Your task to perform on an android device: change alarm snooze length Image 0: 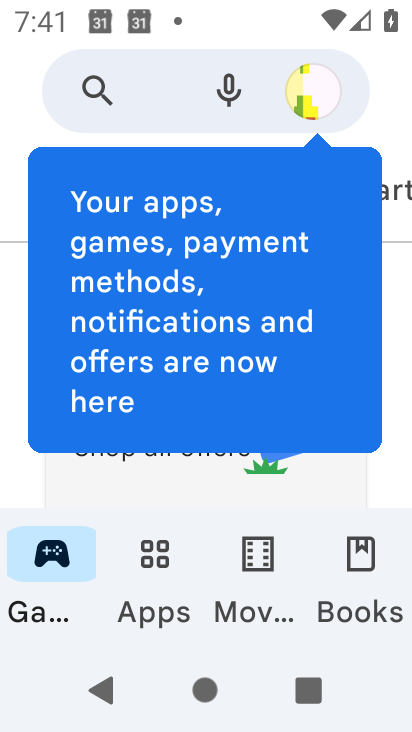
Step 0: press home button
Your task to perform on an android device: change alarm snooze length Image 1: 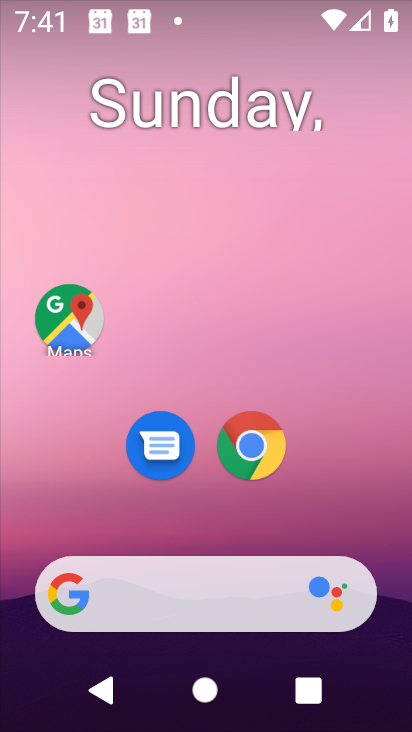
Step 1: drag from (63, 498) to (200, 234)
Your task to perform on an android device: change alarm snooze length Image 2: 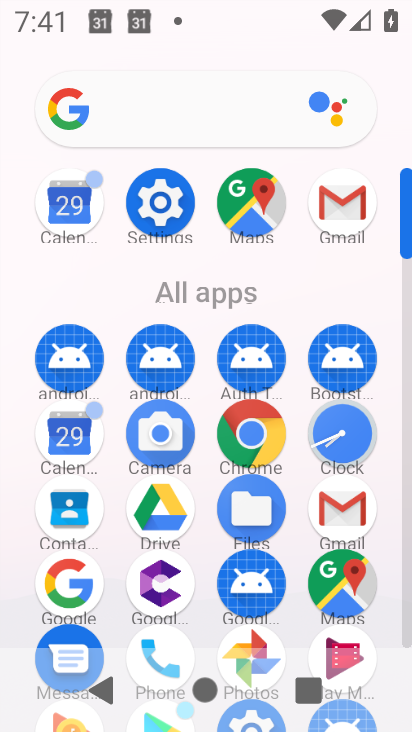
Step 2: click (354, 419)
Your task to perform on an android device: change alarm snooze length Image 3: 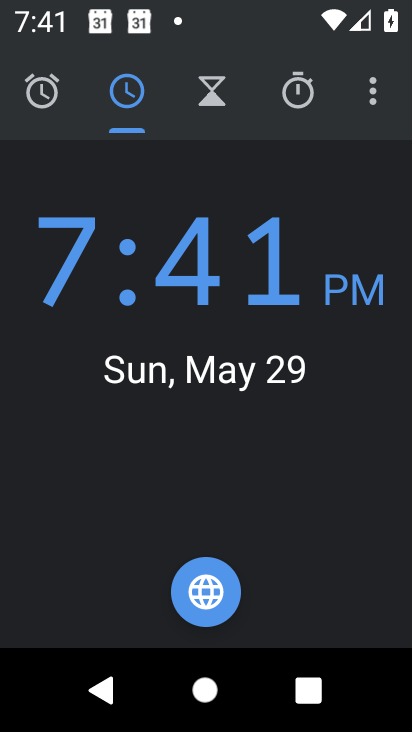
Step 3: click (374, 96)
Your task to perform on an android device: change alarm snooze length Image 4: 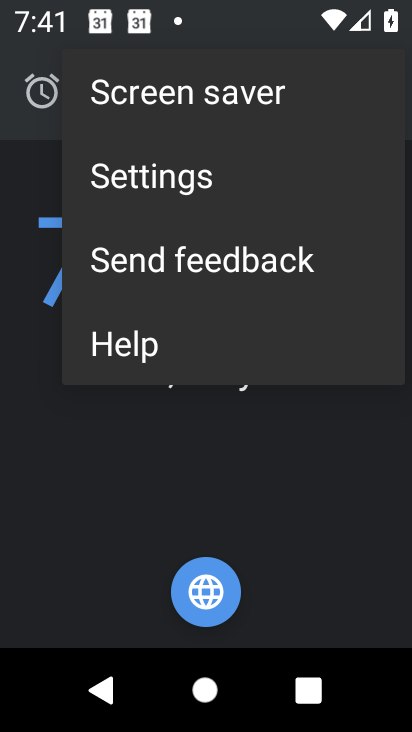
Step 4: click (204, 171)
Your task to perform on an android device: change alarm snooze length Image 5: 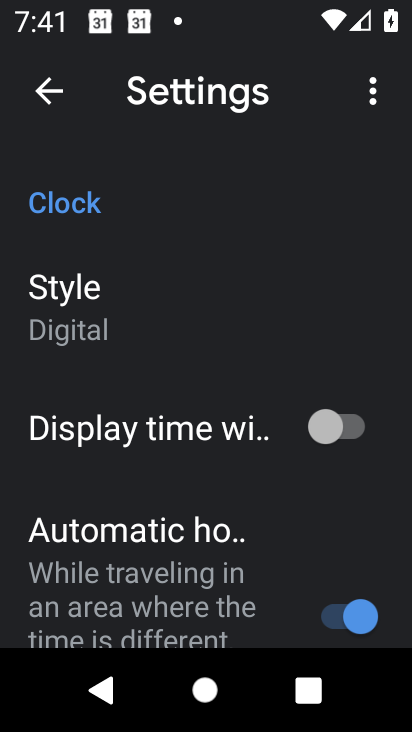
Step 5: drag from (29, 442) to (204, 67)
Your task to perform on an android device: change alarm snooze length Image 6: 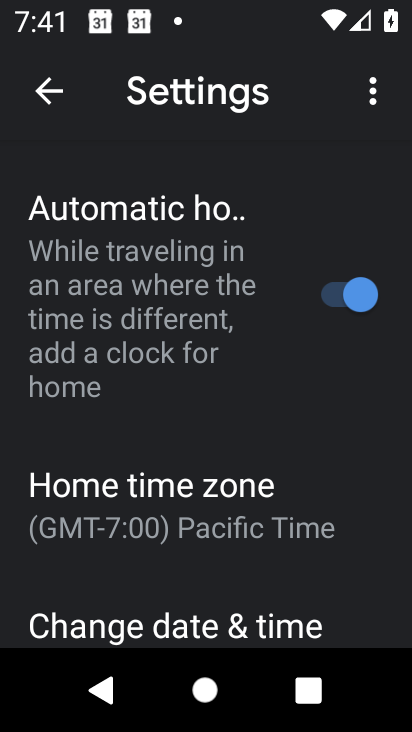
Step 6: drag from (18, 532) to (233, 124)
Your task to perform on an android device: change alarm snooze length Image 7: 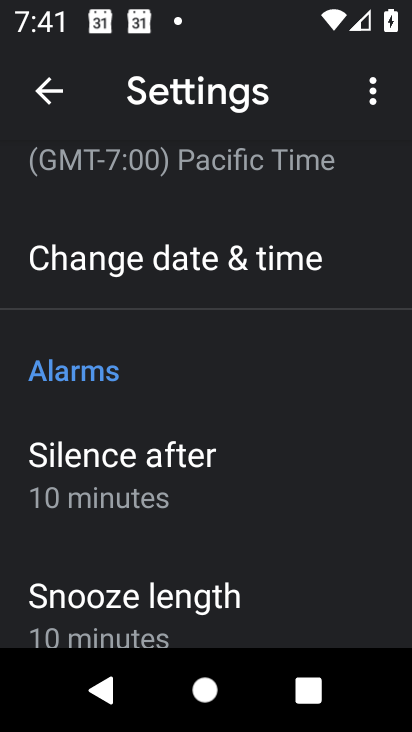
Step 7: click (66, 609)
Your task to perform on an android device: change alarm snooze length Image 8: 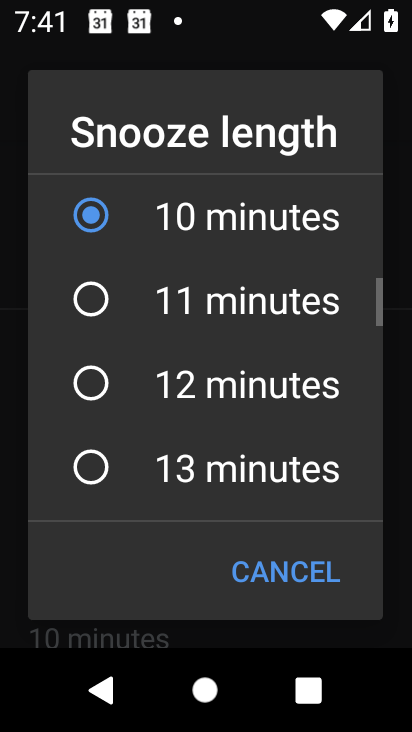
Step 8: click (84, 296)
Your task to perform on an android device: change alarm snooze length Image 9: 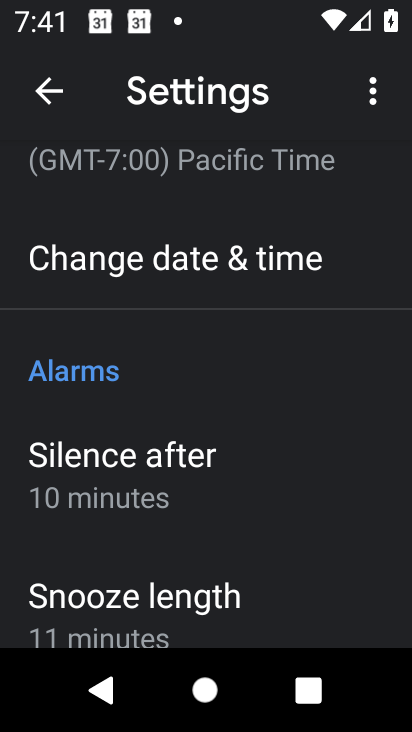
Step 9: task complete